Your task to perform on an android device: Empty the shopping cart on ebay.com. Add macbook to the cart on ebay.com, then select checkout. Image 0: 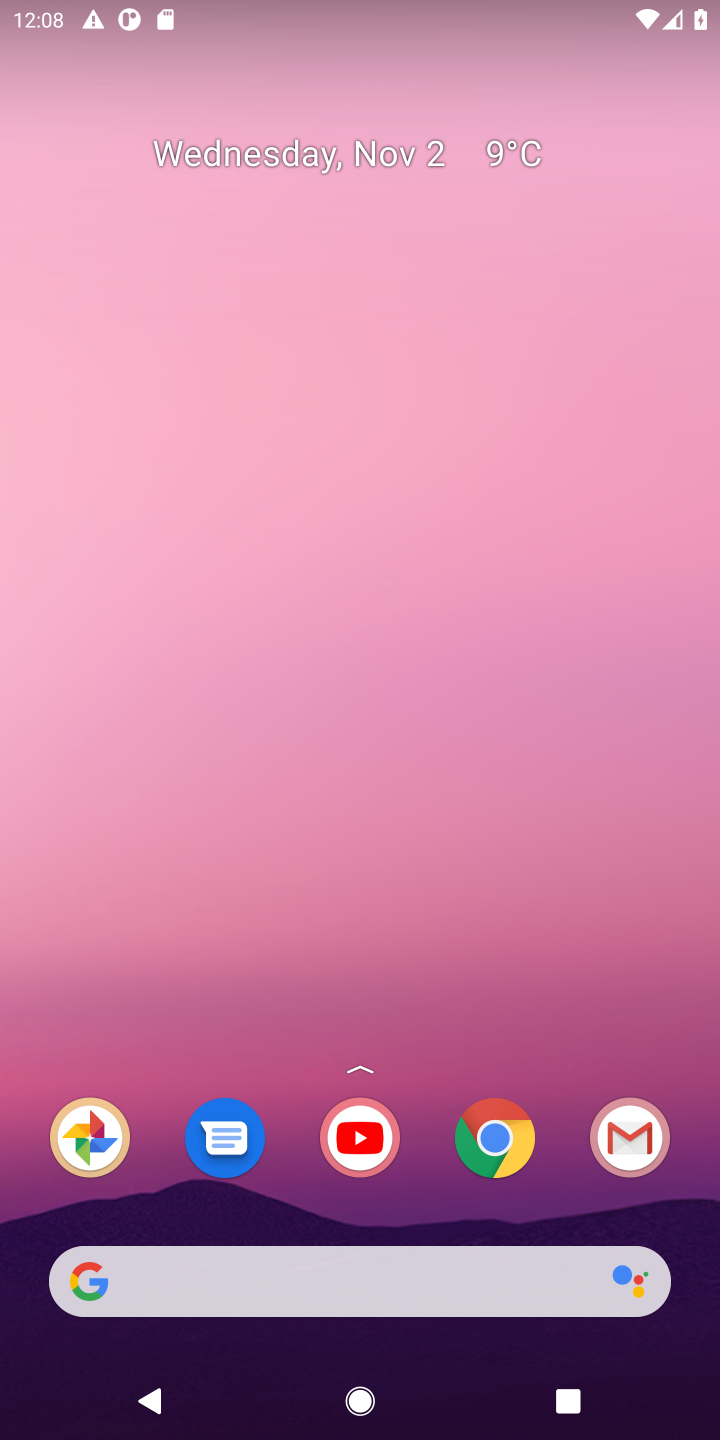
Step 0: click (178, 1263)
Your task to perform on an android device: Empty the shopping cart on ebay.com. Add macbook to the cart on ebay.com, then select checkout. Image 1: 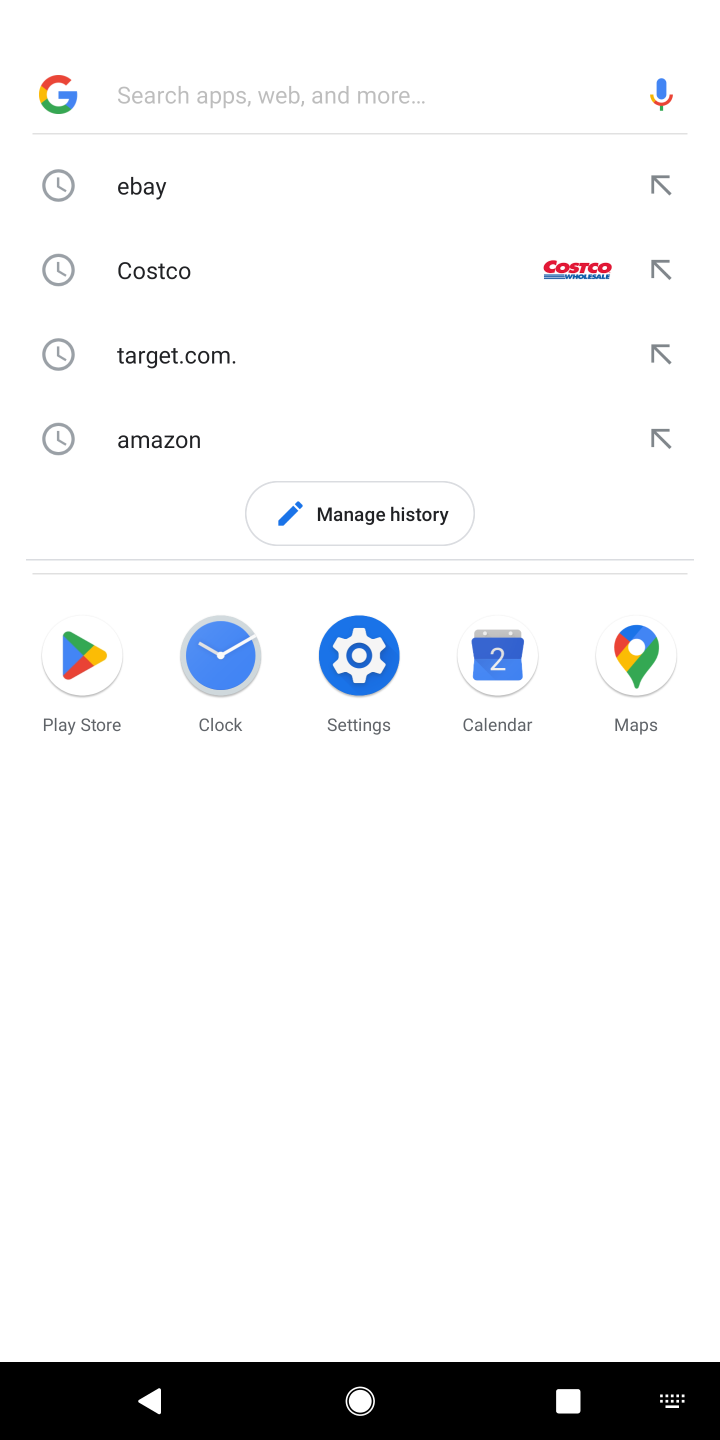
Step 1: click (190, 185)
Your task to perform on an android device: Empty the shopping cart on ebay.com. Add macbook to the cart on ebay.com, then select checkout. Image 2: 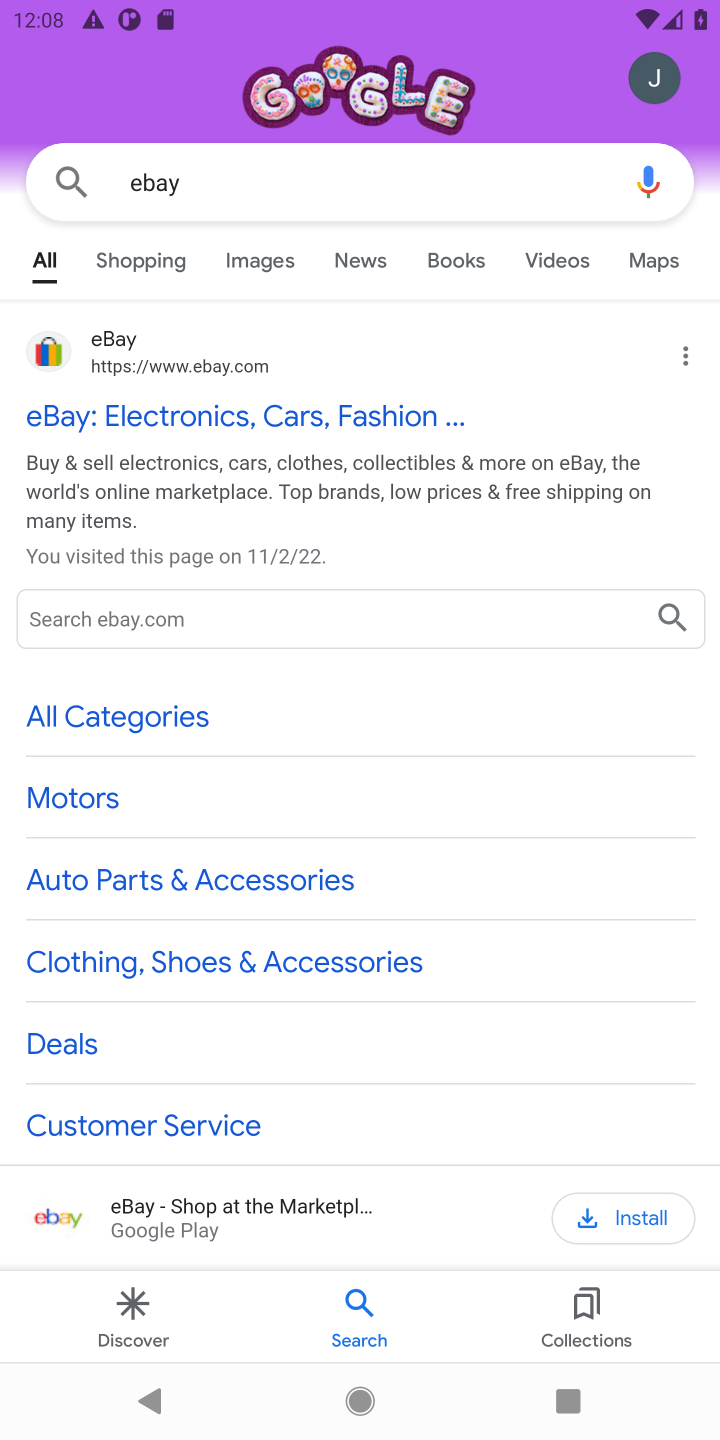
Step 2: click (55, 418)
Your task to perform on an android device: Empty the shopping cart on ebay.com. Add macbook to the cart on ebay.com, then select checkout. Image 3: 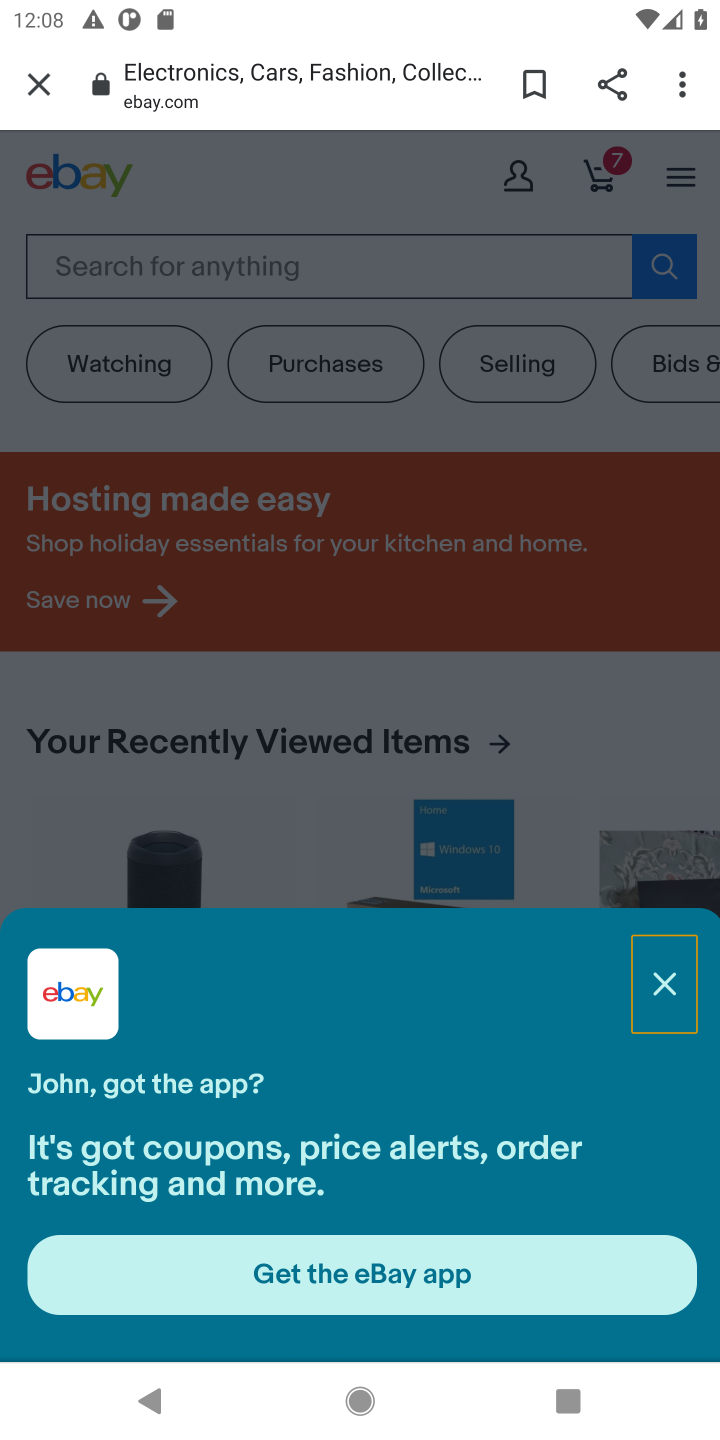
Step 3: click (678, 978)
Your task to perform on an android device: Empty the shopping cart on ebay.com. Add macbook to the cart on ebay.com, then select checkout. Image 4: 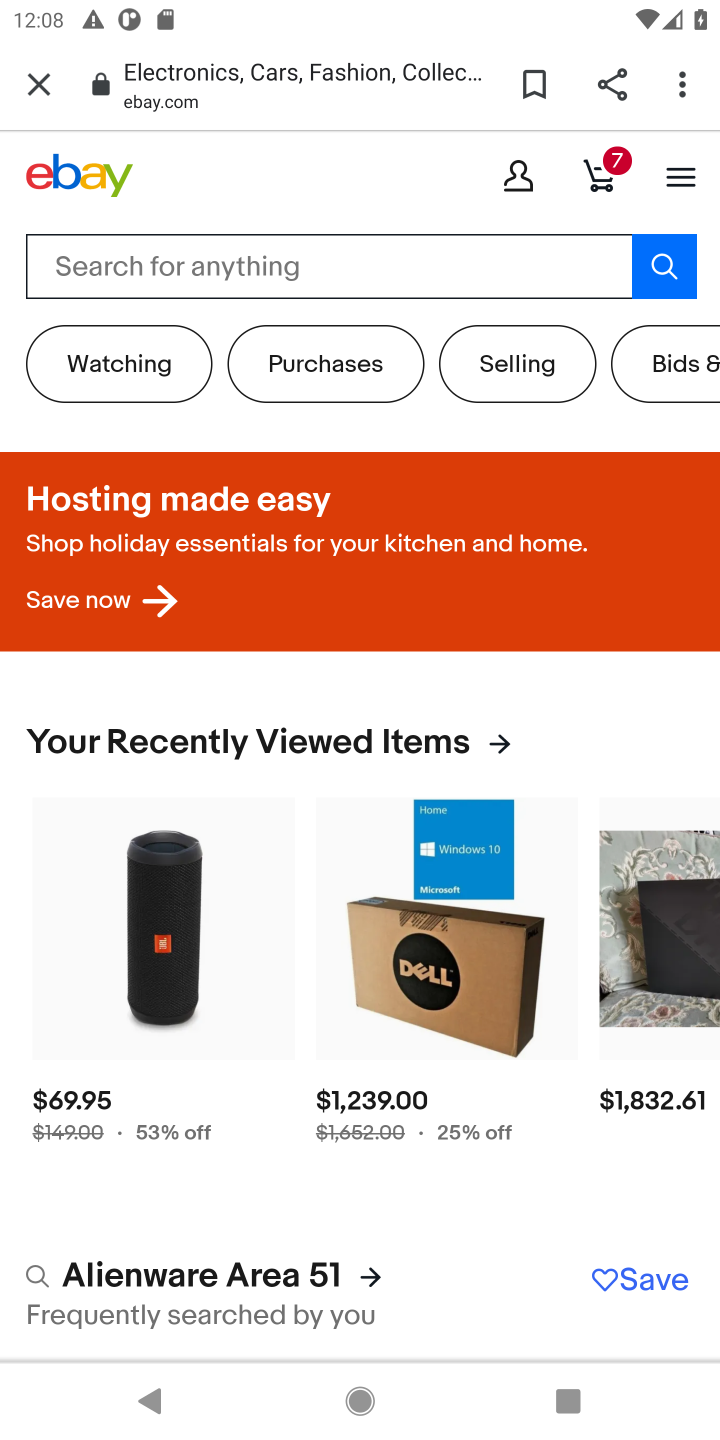
Step 4: click (149, 260)
Your task to perform on an android device: Empty the shopping cart on ebay.com. Add macbook to the cart on ebay.com, then select checkout. Image 5: 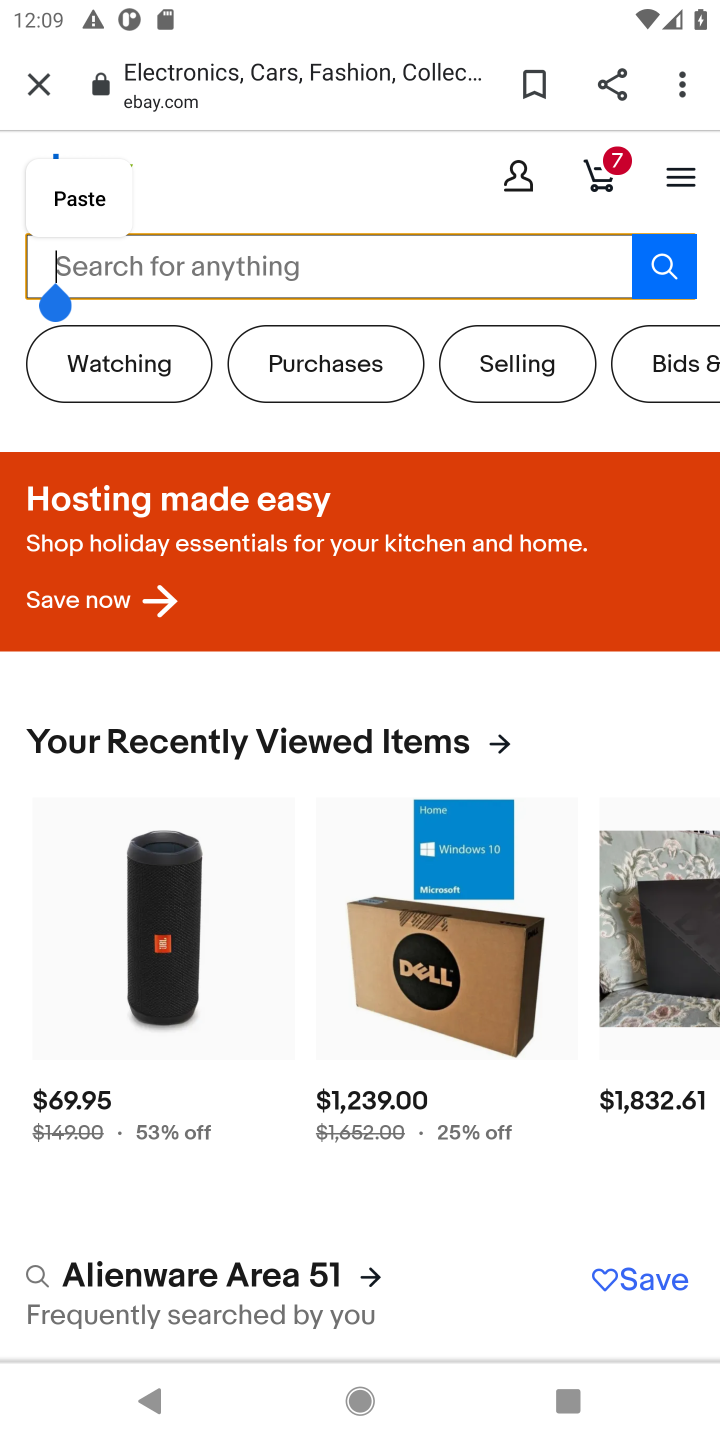
Step 5: type " macbook"
Your task to perform on an android device: Empty the shopping cart on ebay.com. Add macbook to the cart on ebay.com, then select checkout. Image 6: 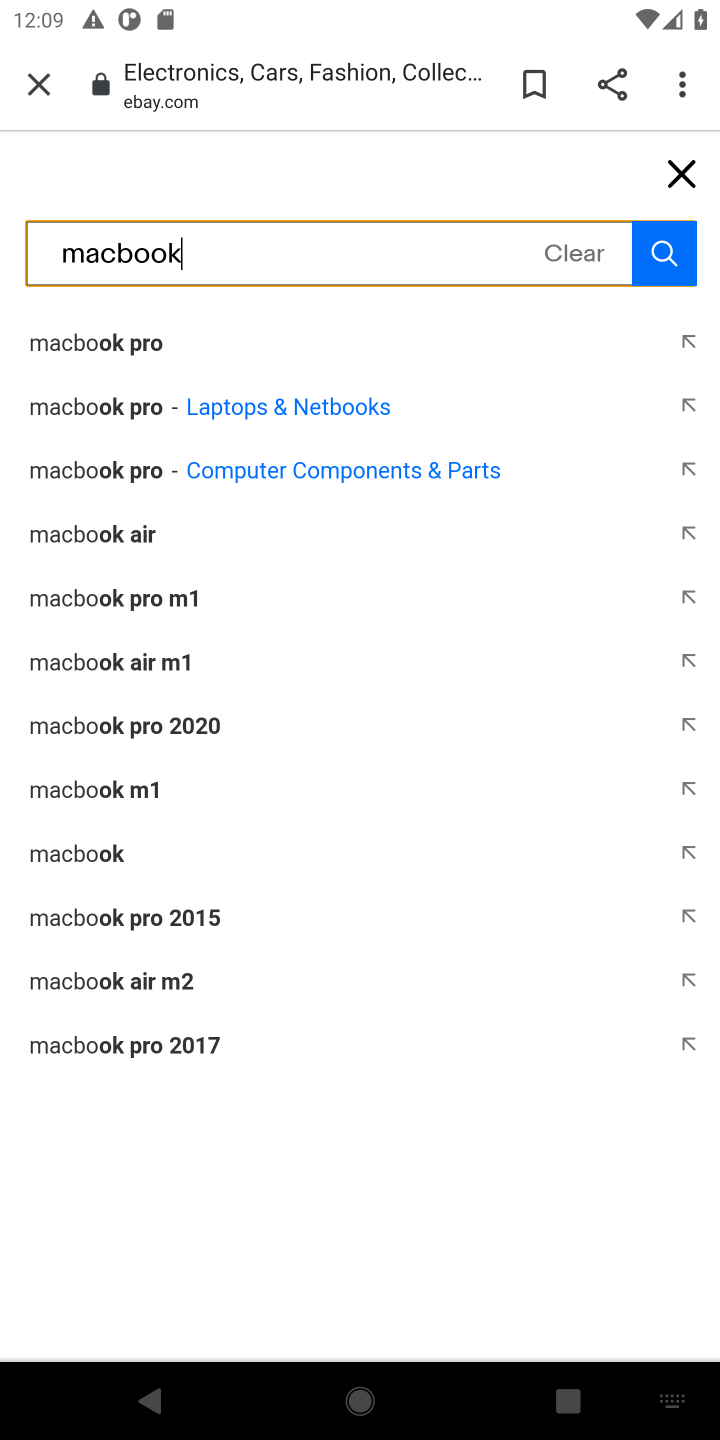
Step 6: click (656, 254)
Your task to perform on an android device: Empty the shopping cart on ebay.com. Add macbook to the cart on ebay.com, then select checkout. Image 7: 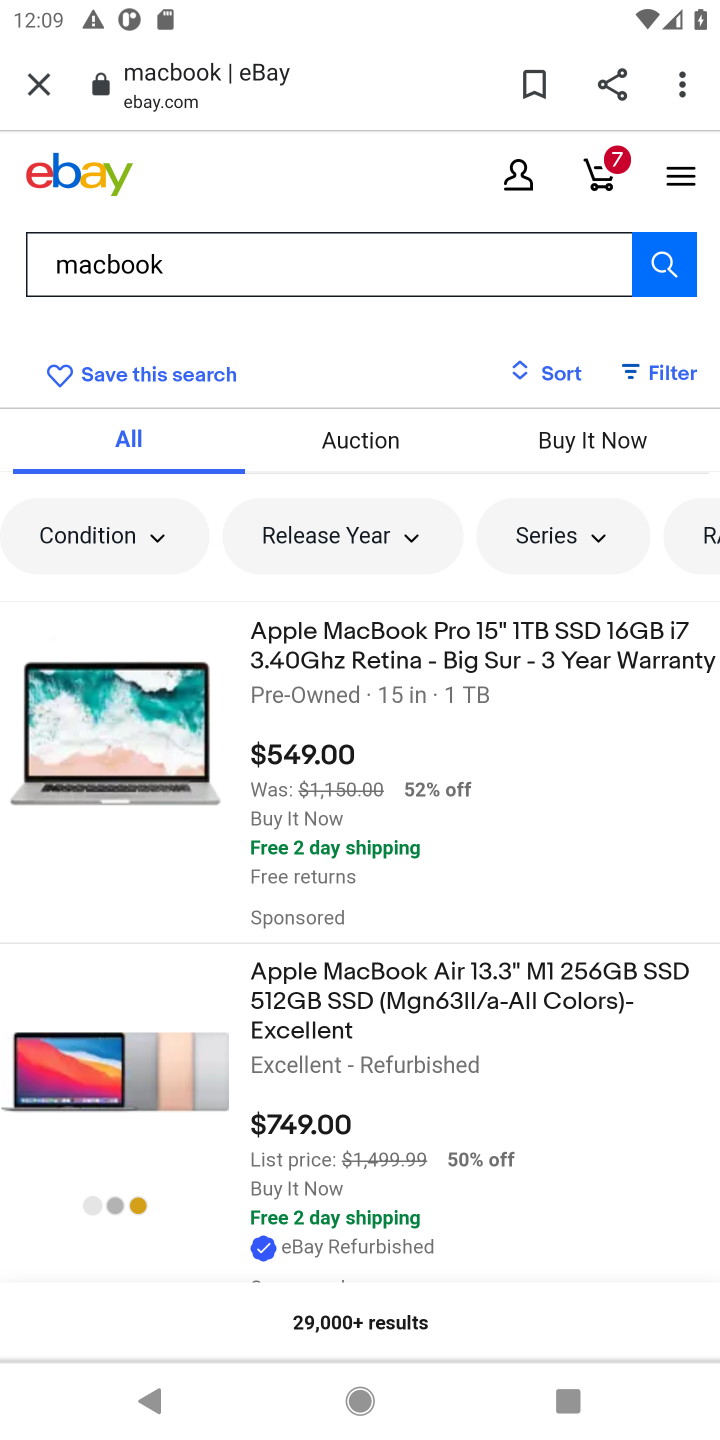
Step 7: click (445, 669)
Your task to perform on an android device: Empty the shopping cart on ebay.com. Add macbook to the cart on ebay.com, then select checkout. Image 8: 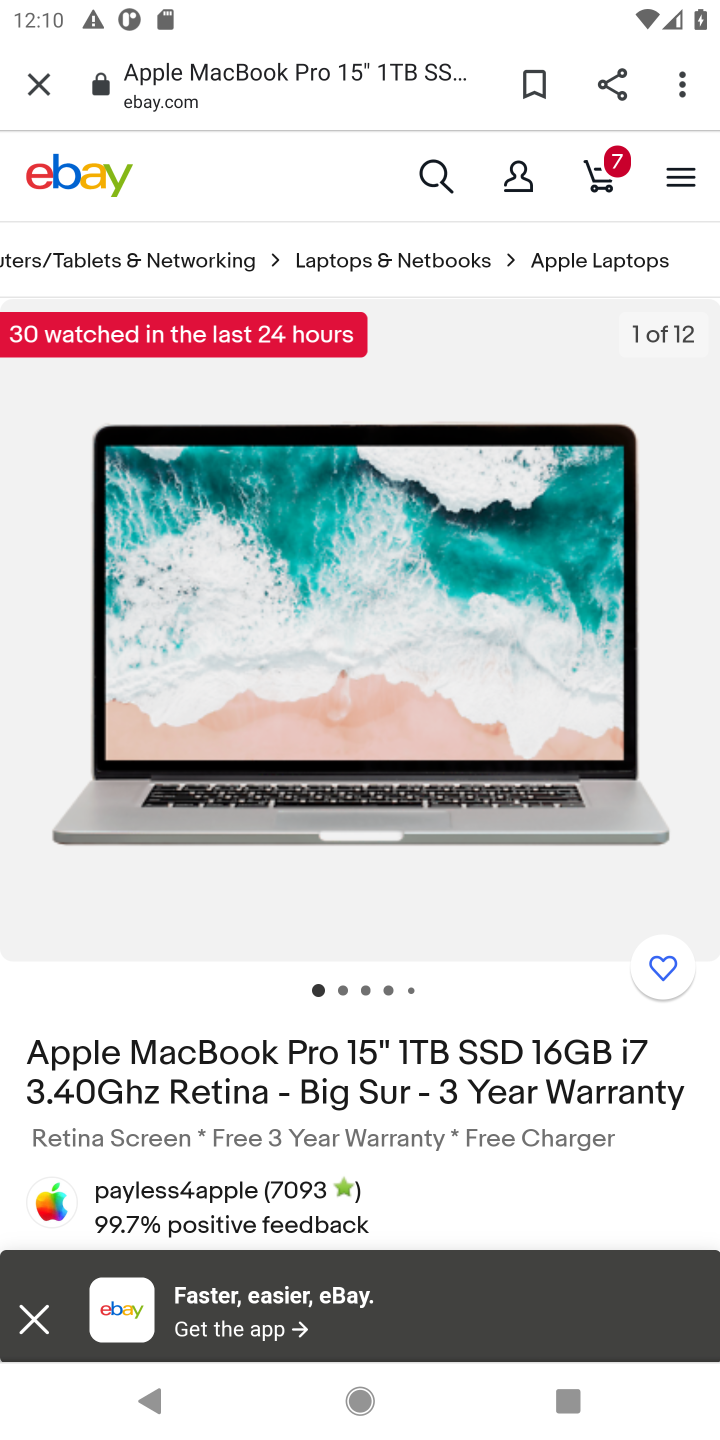
Step 8: drag from (517, 876) to (431, 383)
Your task to perform on an android device: Empty the shopping cart on ebay.com. Add macbook to the cart on ebay.com, then select checkout. Image 9: 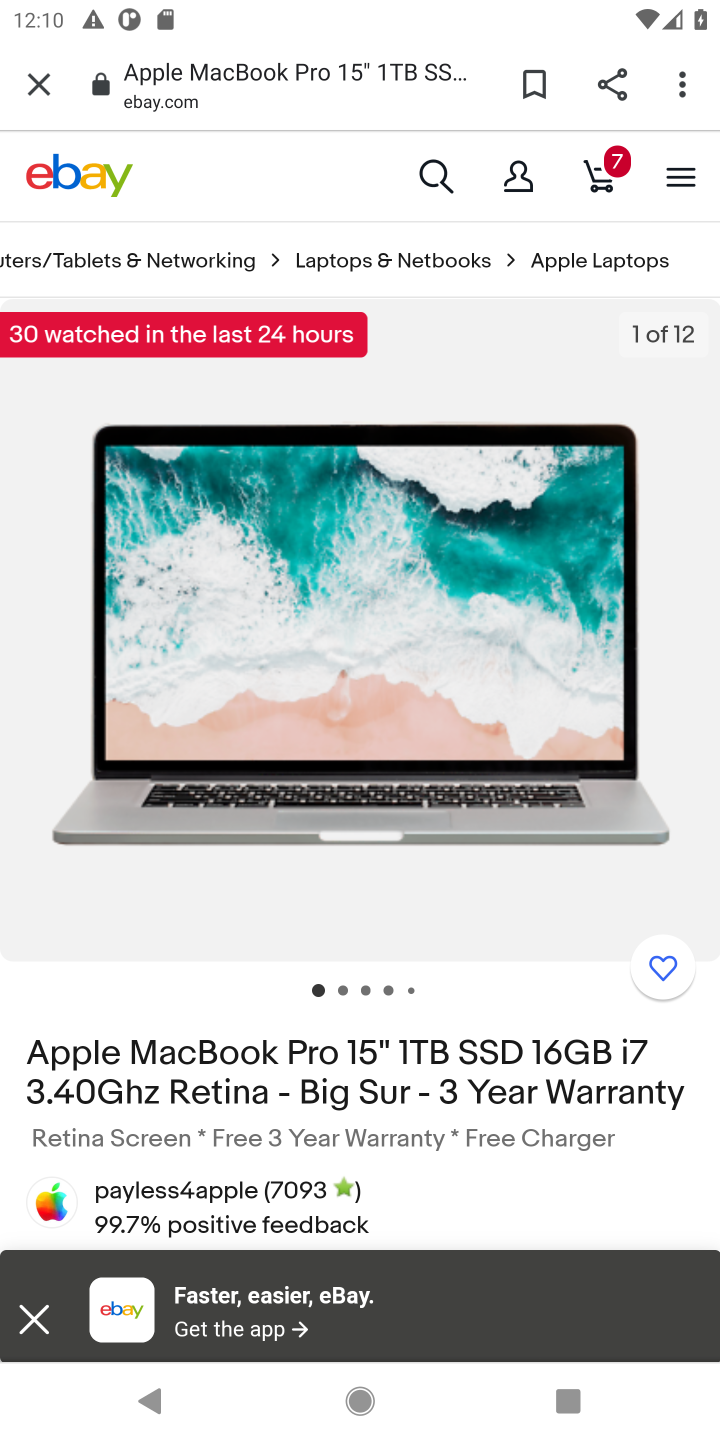
Step 9: drag from (511, 848) to (453, 479)
Your task to perform on an android device: Empty the shopping cart on ebay.com. Add macbook to the cart on ebay.com, then select checkout. Image 10: 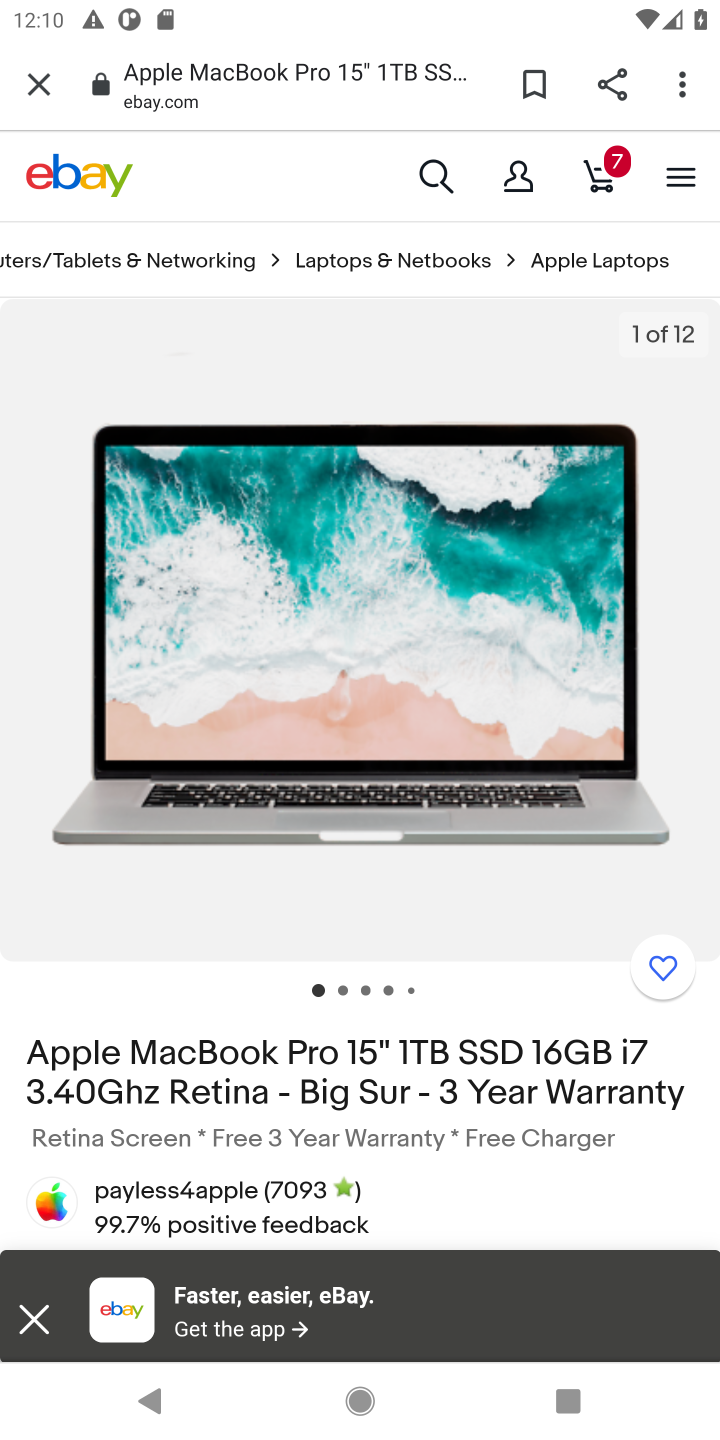
Step 10: drag from (523, 1121) to (524, 545)
Your task to perform on an android device: Empty the shopping cart on ebay.com. Add macbook to the cart on ebay.com, then select checkout. Image 11: 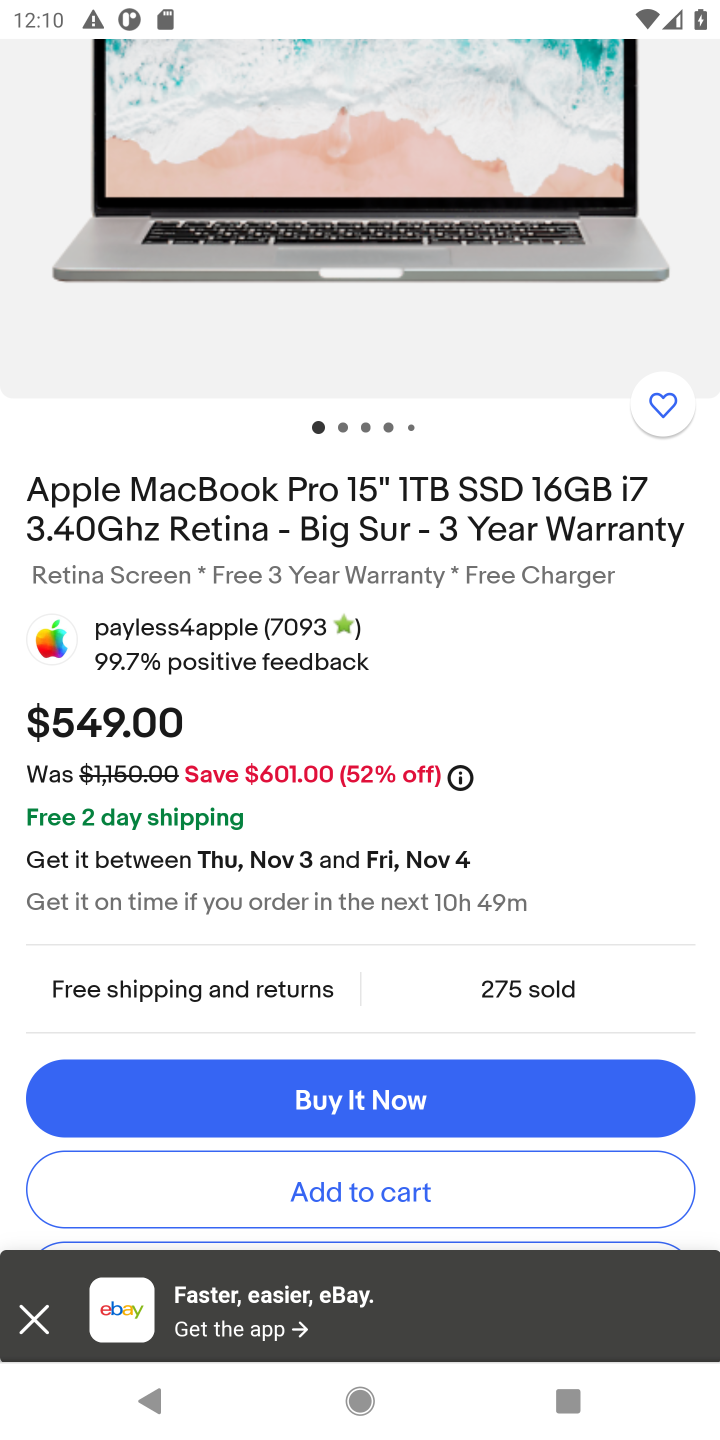
Step 11: click (369, 1156)
Your task to perform on an android device: Empty the shopping cart on ebay.com. Add macbook to the cart on ebay.com, then select checkout. Image 12: 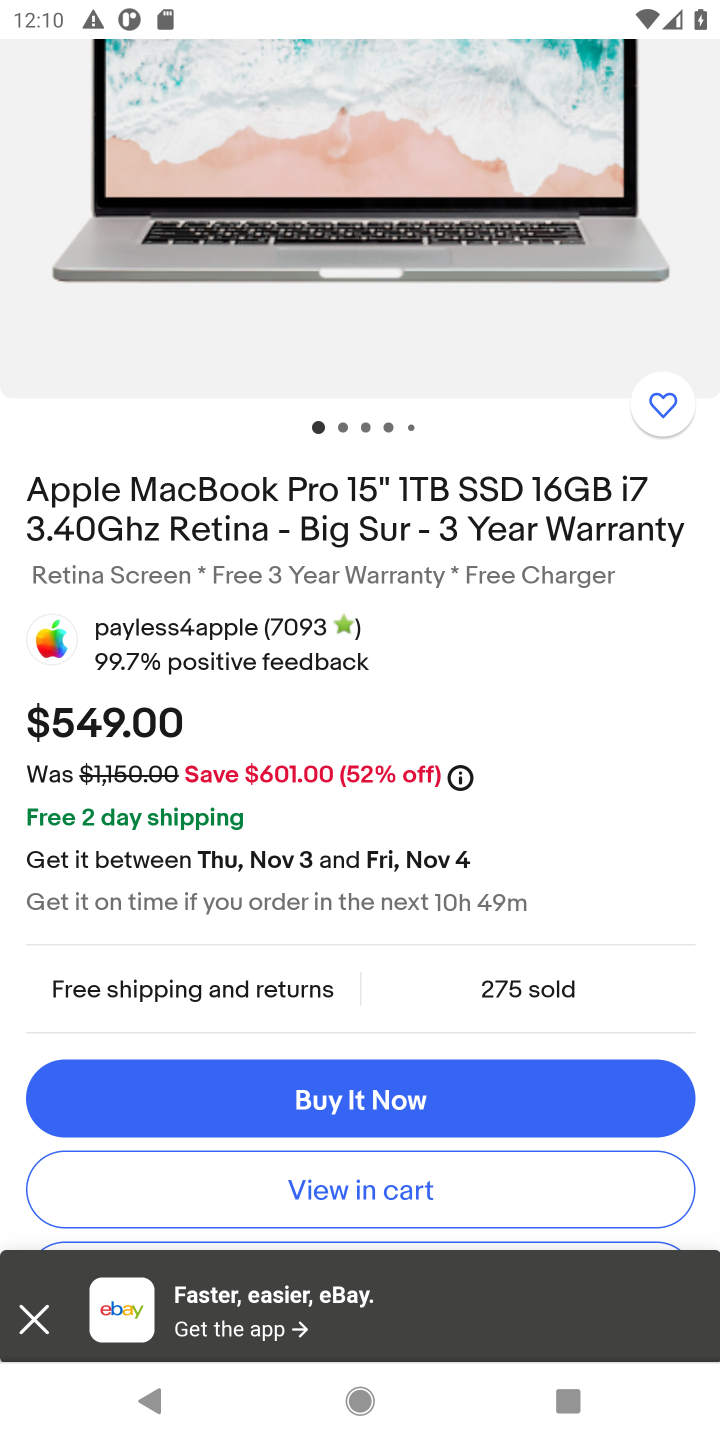
Step 12: task complete